Your task to perform on an android device: Open display settings Image 0: 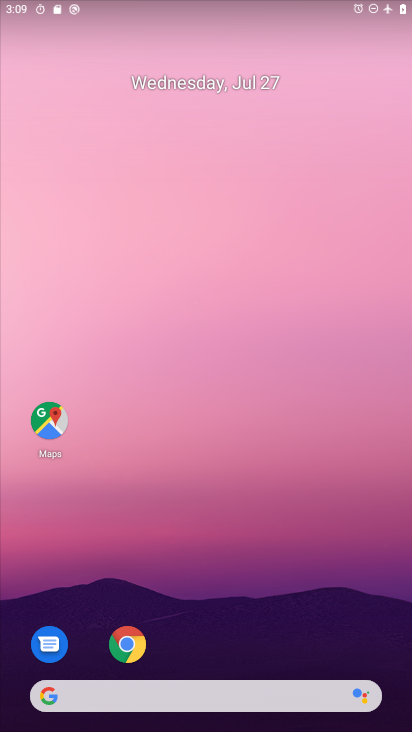
Step 0: drag from (194, 605) to (248, 306)
Your task to perform on an android device: Open display settings Image 1: 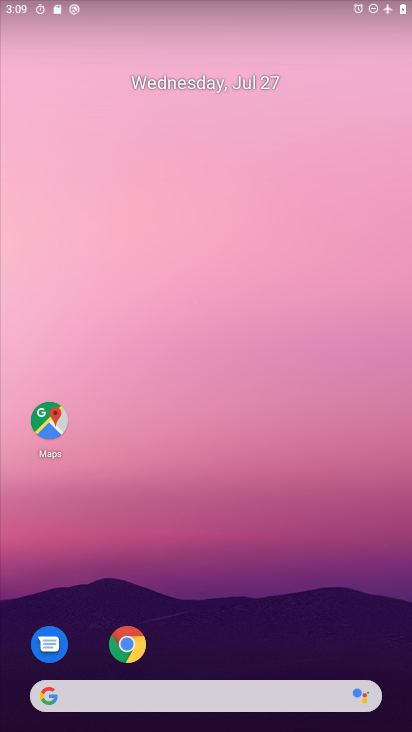
Step 1: drag from (184, 646) to (239, 268)
Your task to perform on an android device: Open display settings Image 2: 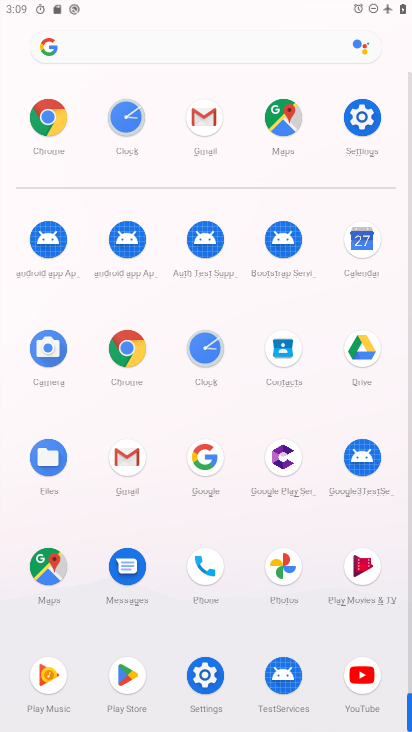
Step 2: click (205, 675)
Your task to perform on an android device: Open display settings Image 3: 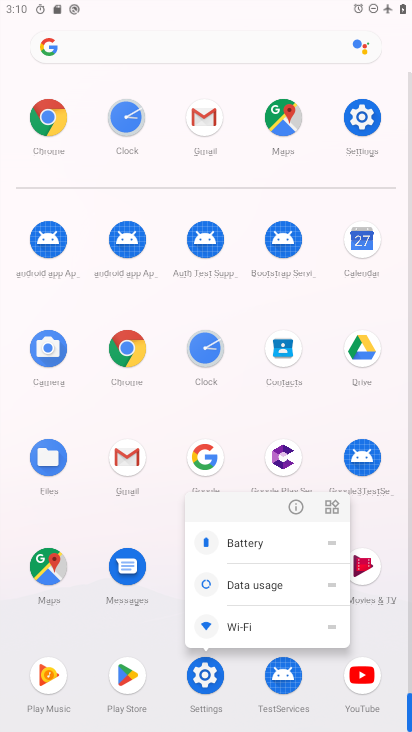
Step 3: click (288, 504)
Your task to perform on an android device: Open display settings Image 4: 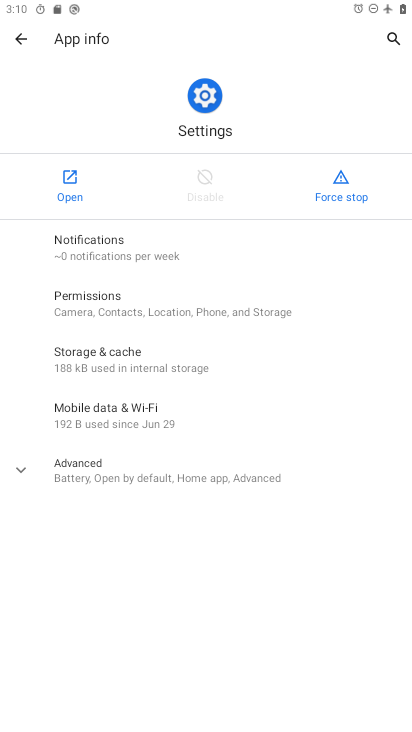
Step 4: click (52, 200)
Your task to perform on an android device: Open display settings Image 5: 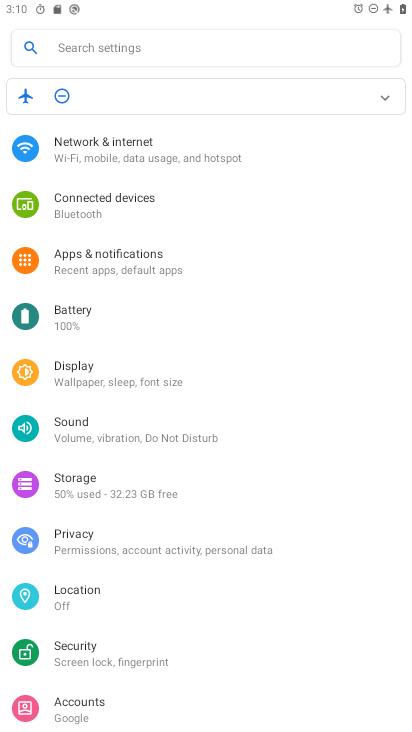
Step 5: drag from (132, 552) to (154, 271)
Your task to perform on an android device: Open display settings Image 6: 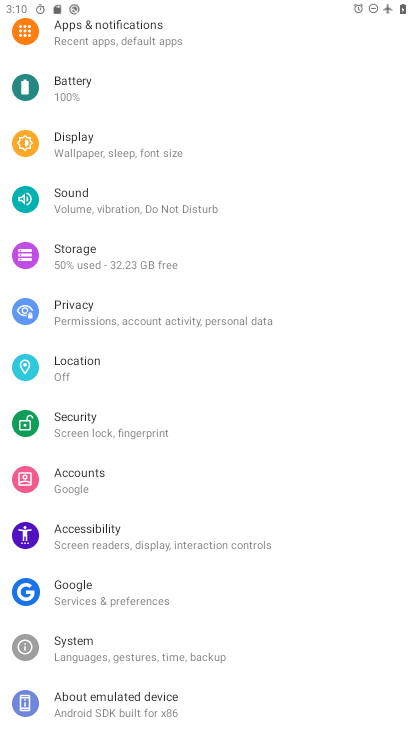
Step 6: click (95, 137)
Your task to perform on an android device: Open display settings Image 7: 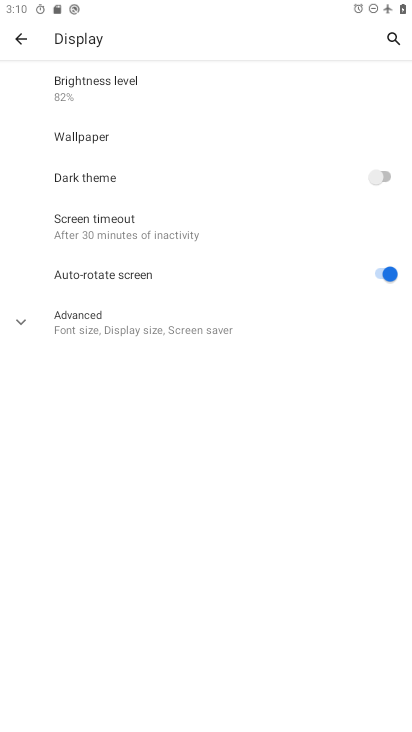
Step 7: task complete